Your task to perform on an android device: Go to wifi settings Image 0: 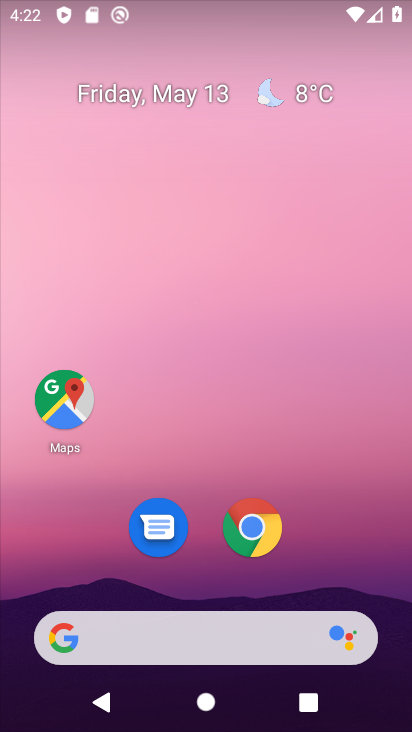
Step 0: drag from (114, 597) to (287, 123)
Your task to perform on an android device: Go to wifi settings Image 1: 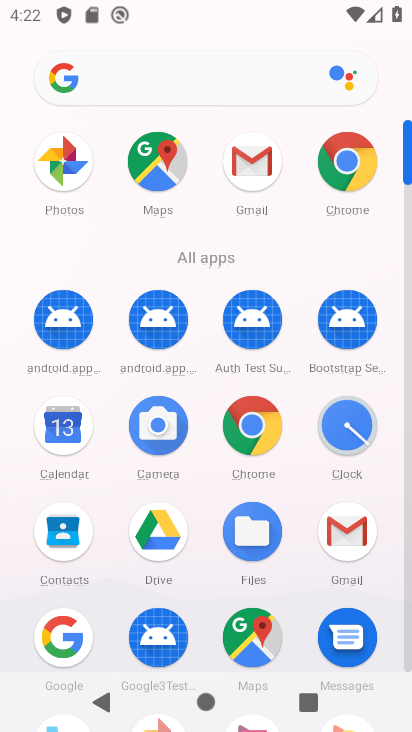
Step 1: drag from (206, 558) to (282, 301)
Your task to perform on an android device: Go to wifi settings Image 2: 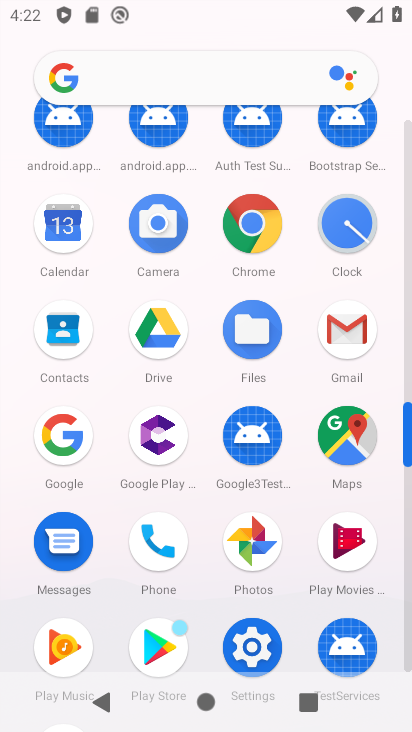
Step 2: click (248, 649)
Your task to perform on an android device: Go to wifi settings Image 3: 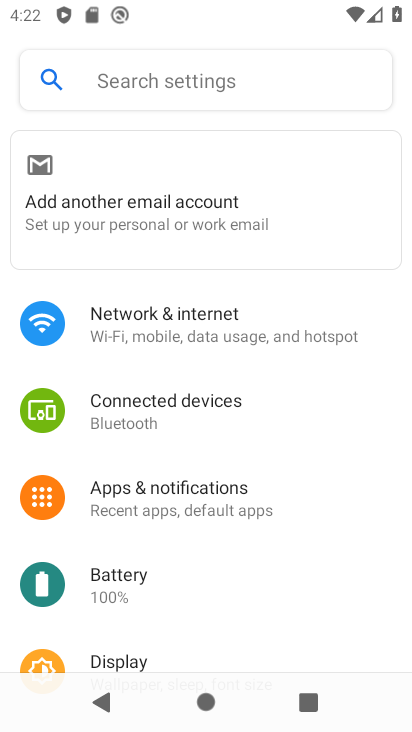
Step 3: click (248, 348)
Your task to perform on an android device: Go to wifi settings Image 4: 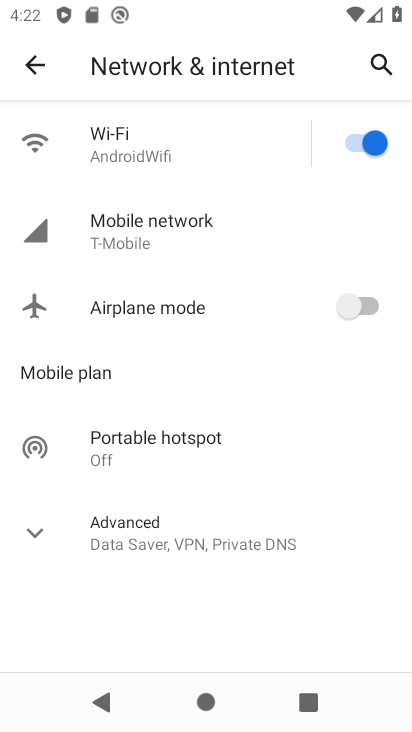
Step 4: click (181, 156)
Your task to perform on an android device: Go to wifi settings Image 5: 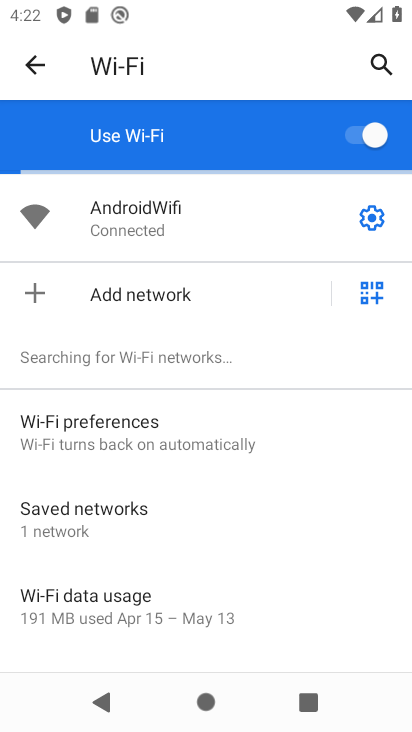
Step 5: task complete